Your task to perform on an android device: Open Wikipedia Image 0: 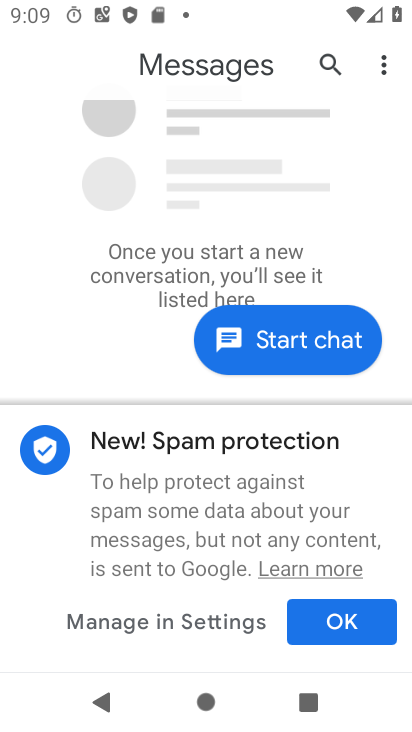
Step 0: press home button
Your task to perform on an android device: Open Wikipedia Image 1: 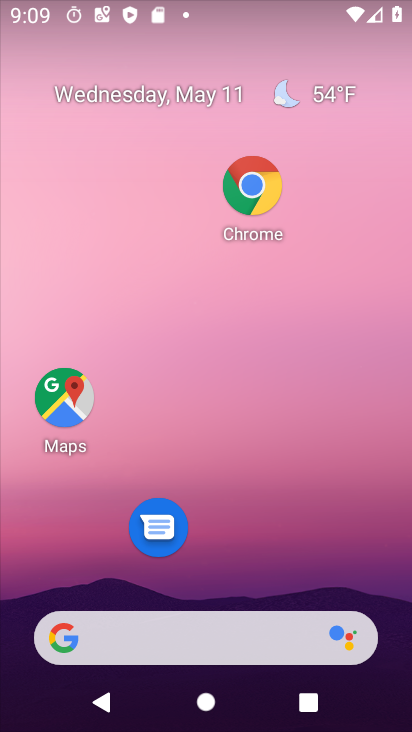
Step 1: click (260, 187)
Your task to perform on an android device: Open Wikipedia Image 2: 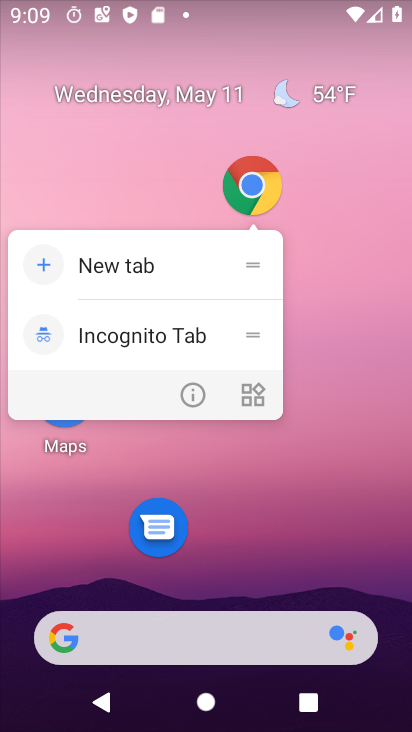
Step 2: click (259, 187)
Your task to perform on an android device: Open Wikipedia Image 3: 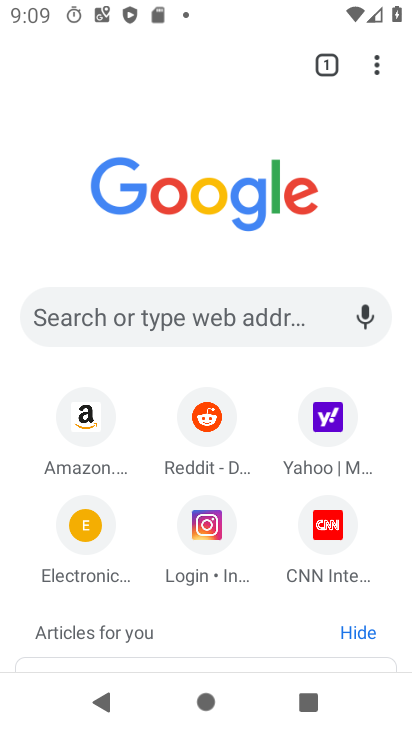
Step 3: drag from (206, 611) to (195, 414)
Your task to perform on an android device: Open Wikipedia Image 4: 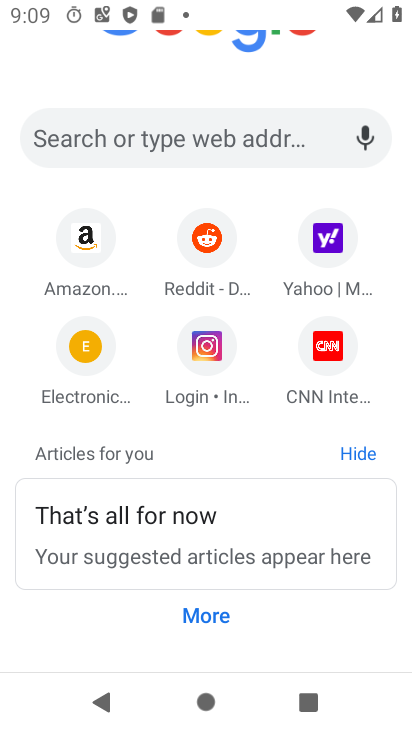
Step 4: click (188, 141)
Your task to perform on an android device: Open Wikipedia Image 5: 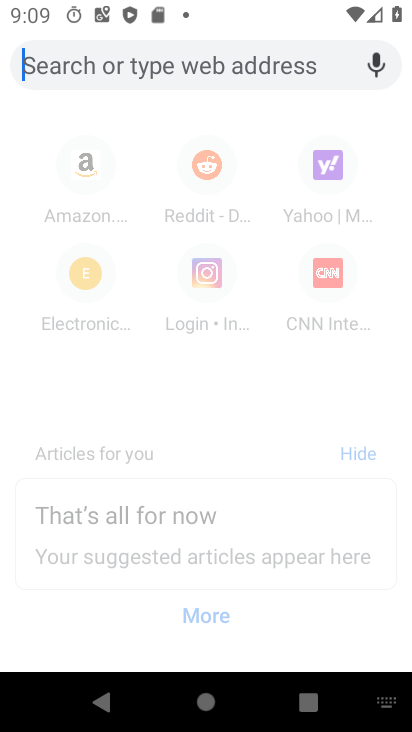
Step 5: type "wikkipedia"
Your task to perform on an android device: Open Wikipedia Image 6: 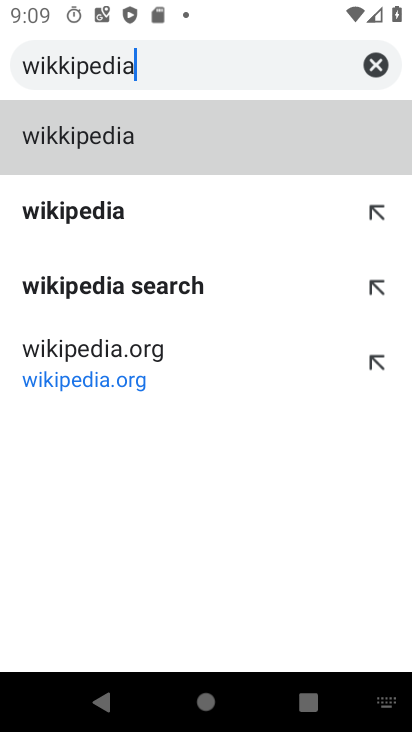
Step 6: click (145, 203)
Your task to perform on an android device: Open Wikipedia Image 7: 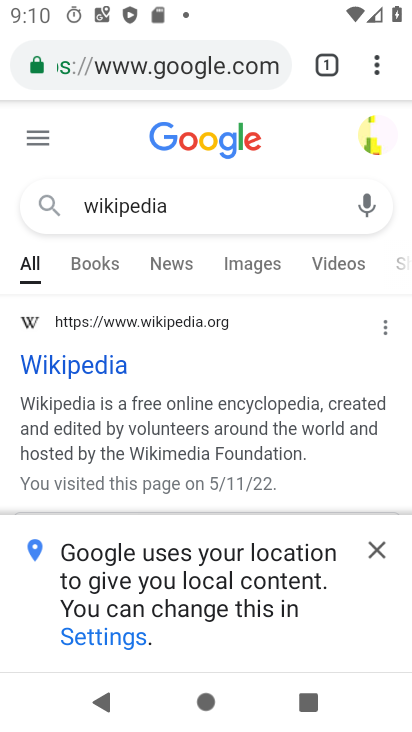
Step 7: click (110, 367)
Your task to perform on an android device: Open Wikipedia Image 8: 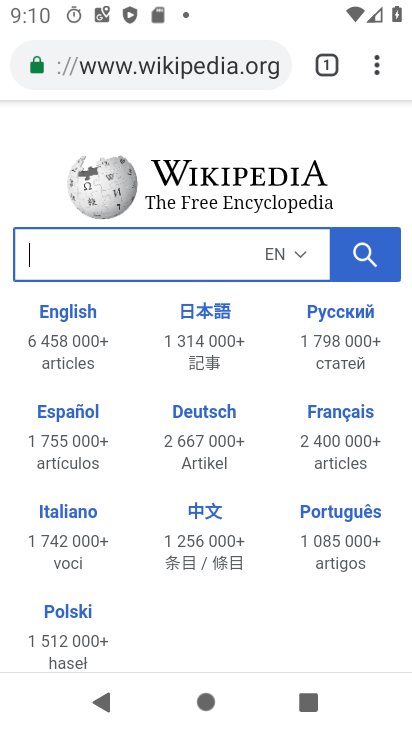
Step 8: task complete